Your task to perform on an android device: turn off improve location accuracy Image 0: 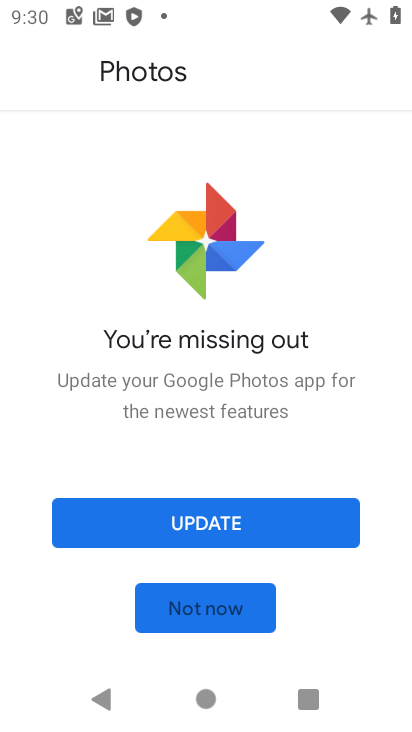
Step 0: task complete